Your task to perform on an android device: Go to network settings Image 0: 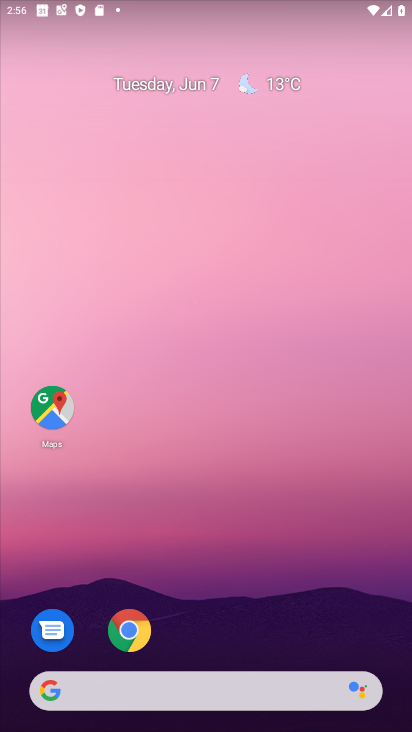
Step 0: drag from (225, 628) to (302, 223)
Your task to perform on an android device: Go to network settings Image 1: 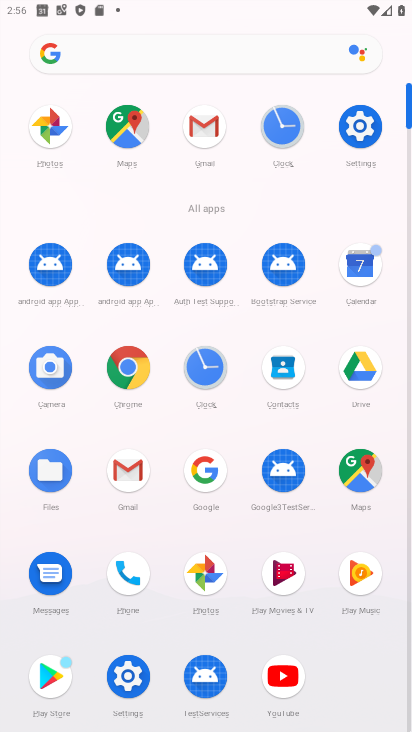
Step 1: click (135, 676)
Your task to perform on an android device: Go to network settings Image 2: 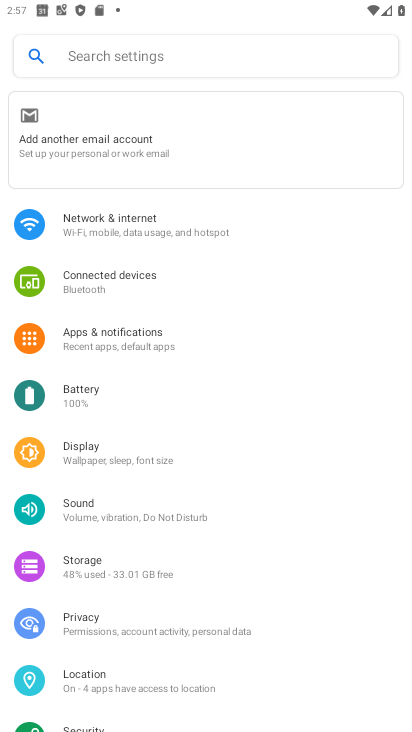
Step 2: click (199, 233)
Your task to perform on an android device: Go to network settings Image 3: 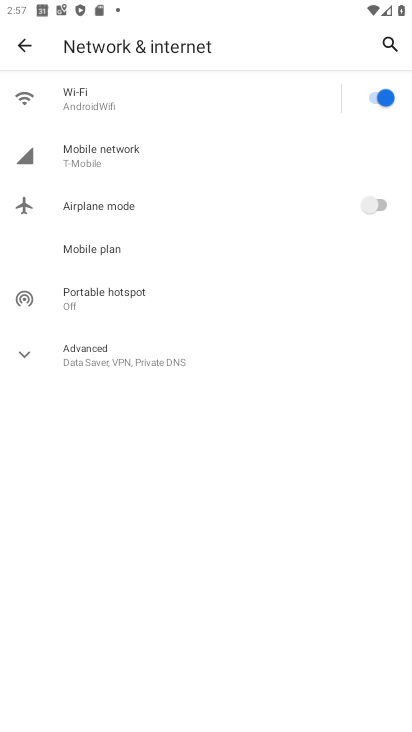
Step 3: click (163, 152)
Your task to perform on an android device: Go to network settings Image 4: 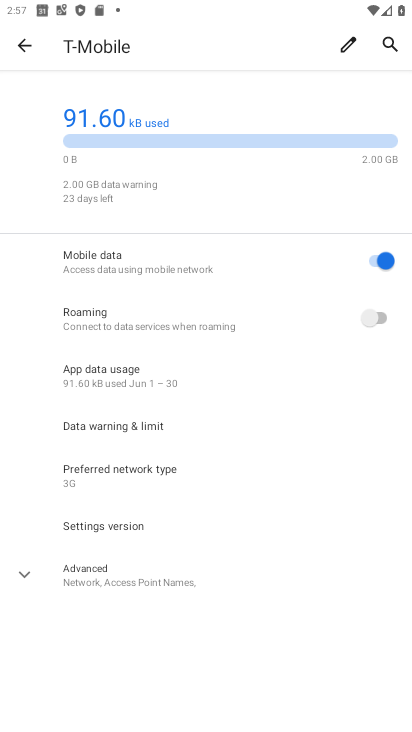
Step 4: task complete